Your task to perform on an android device: Show me recent news Image 0: 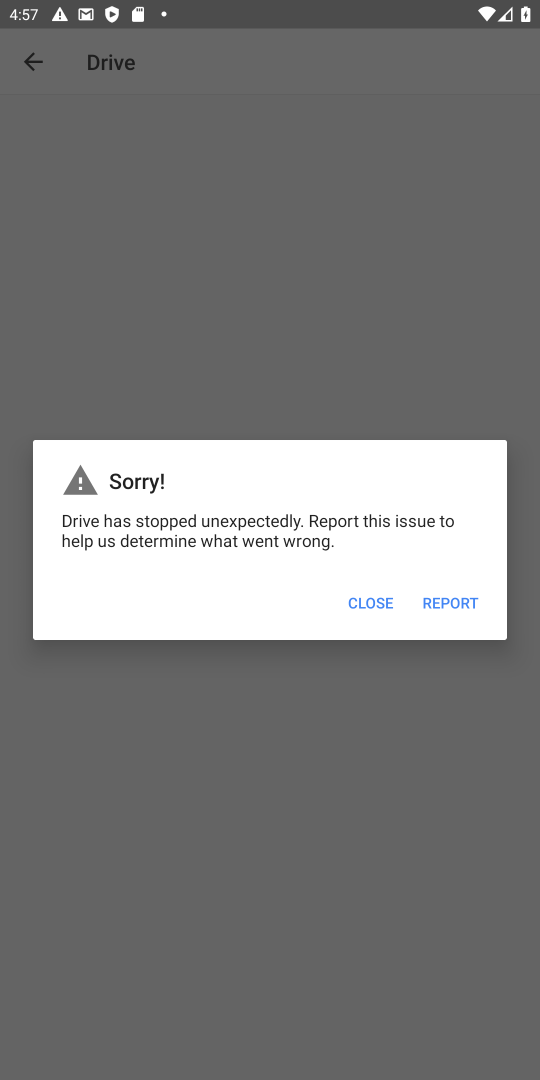
Step 0: press home button
Your task to perform on an android device: Show me recent news Image 1: 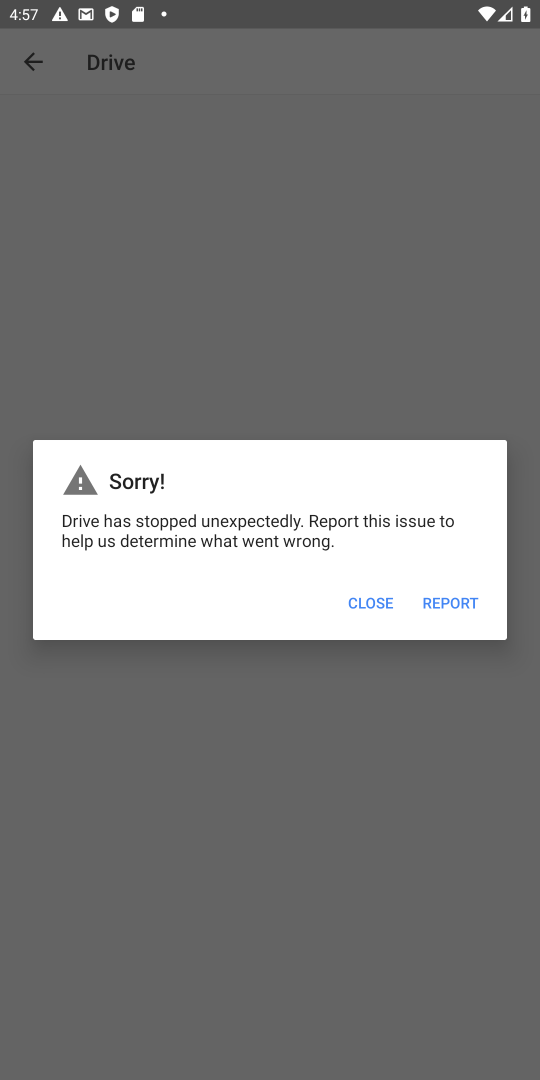
Step 1: press home button
Your task to perform on an android device: Show me recent news Image 2: 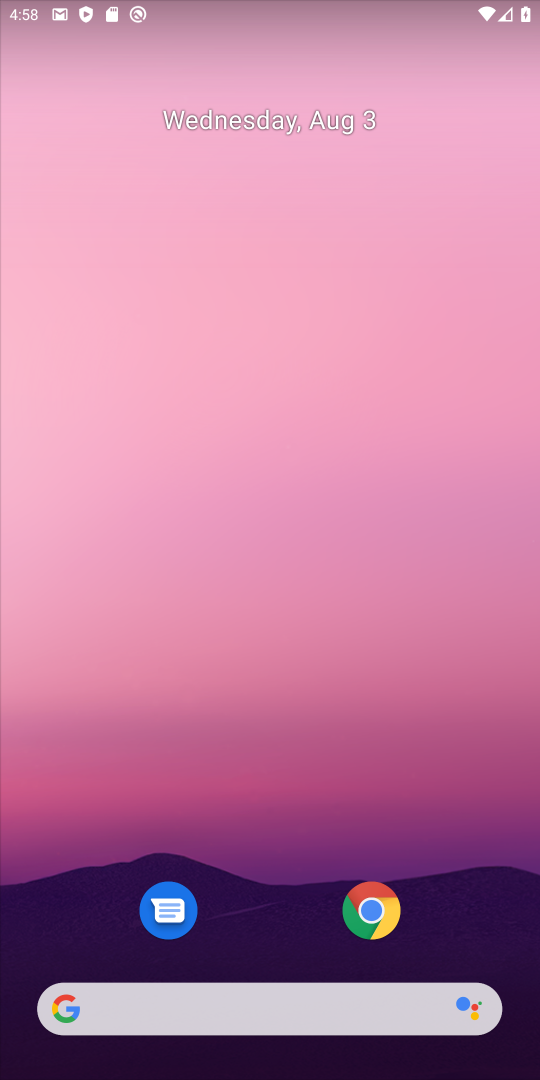
Step 2: click (346, 906)
Your task to perform on an android device: Show me recent news Image 3: 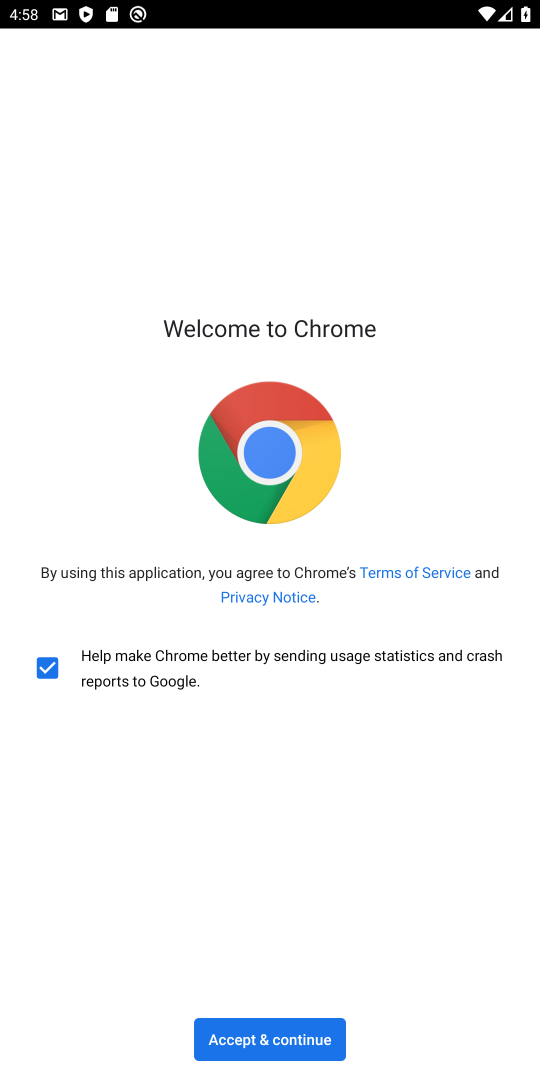
Step 3: click (234, 1026)
Your task to perform on an android device: Show me recent news Image 4: 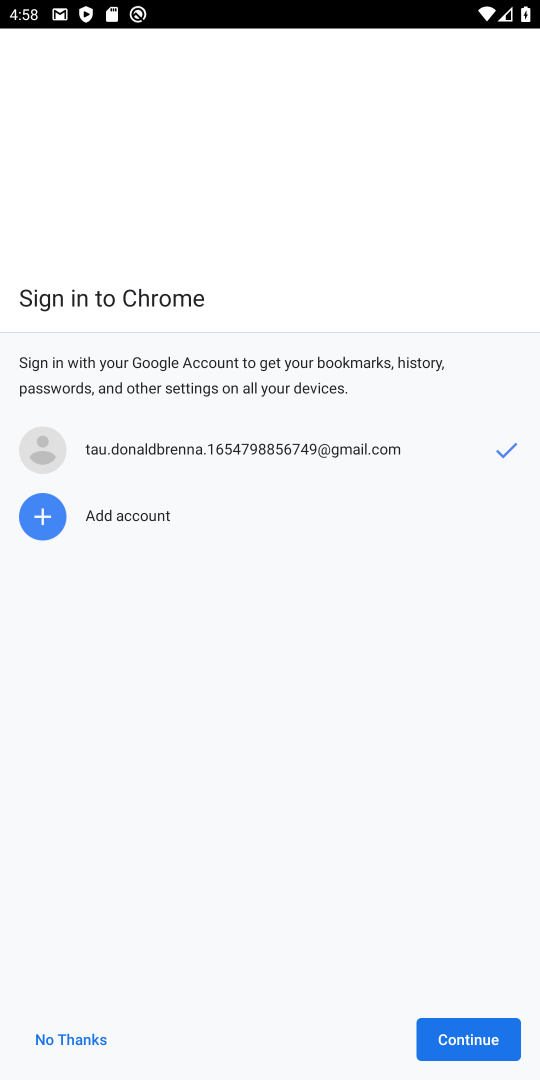
Step 4: click (447, 1047)
Your task to perform on an android device: Show me recent news Image 5: 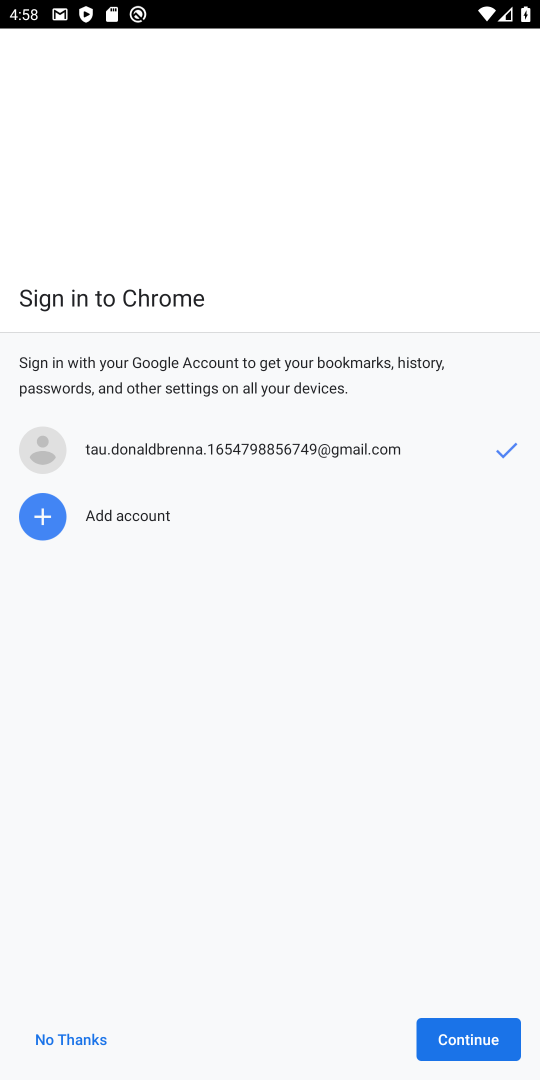
Step 5: click (447, 1047)
Your task to perform on an android device: Show me recent news Image 6: 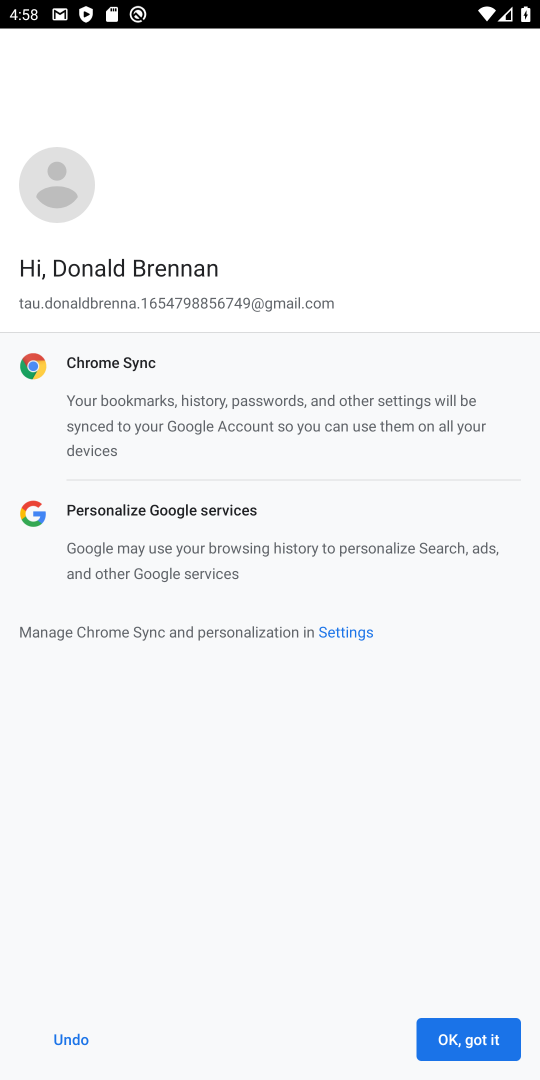
Step 6: click (447, 1047)
Your task to perform on an android device: Show me recent news Image 7: 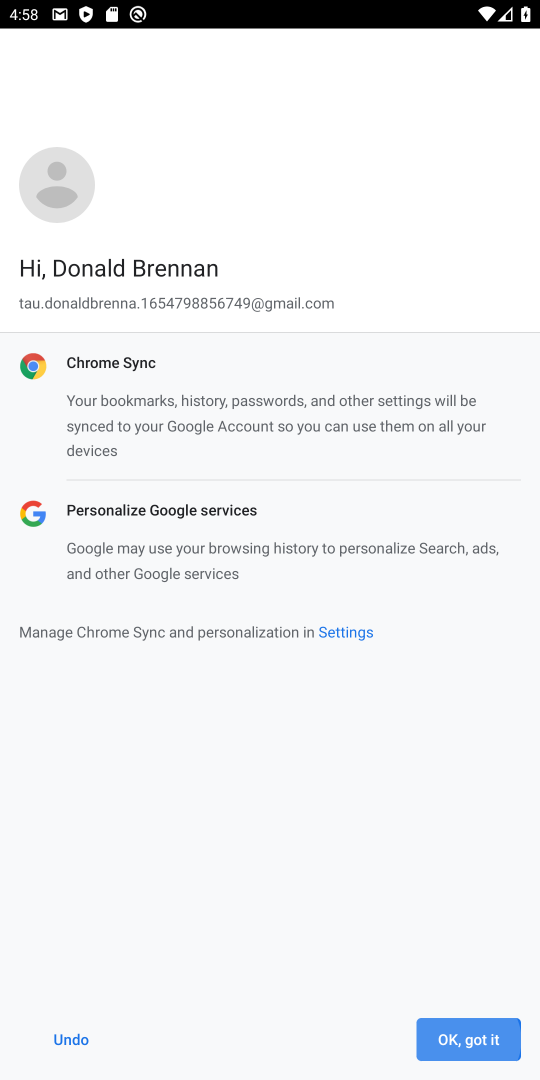
Step 7: click (447, 1047)
Your task to perform on an android device: Show me recent news Image 8: 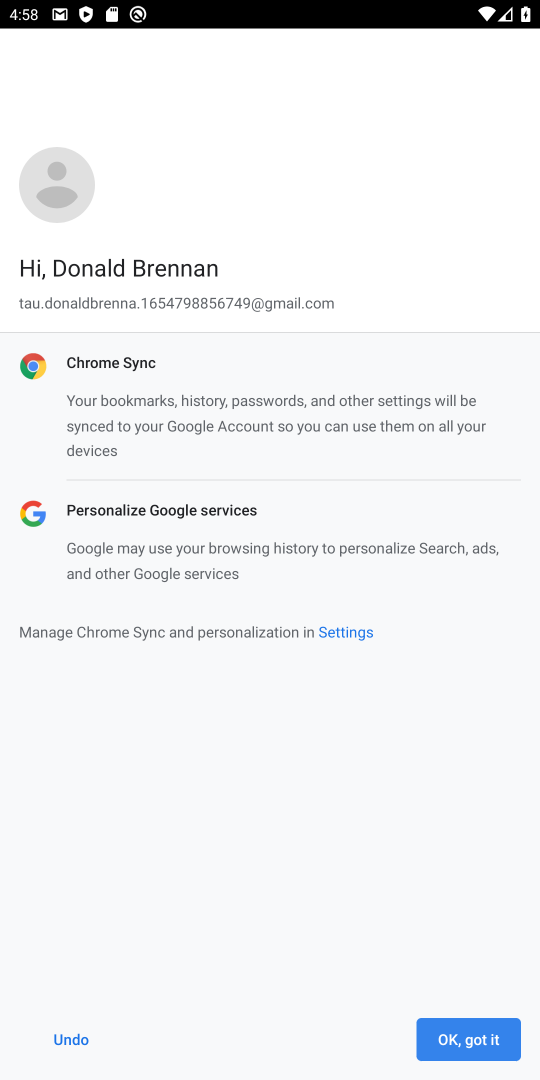
Step 8: click (447, 1047)
Your task to perform on an android device: Show me recent news Image 9: 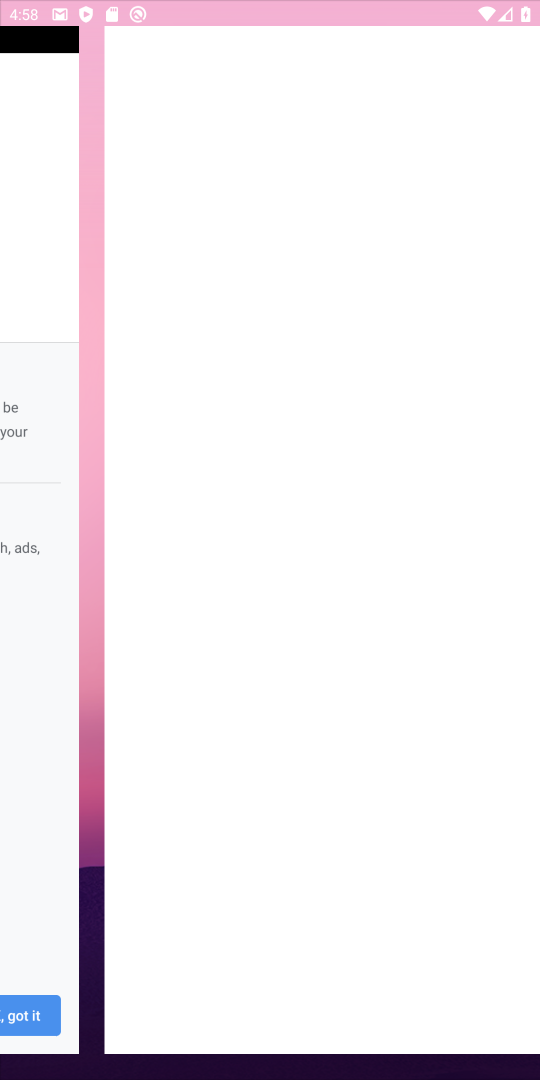
Step 9: click (447, 1047)
Your task to perform on an android device: Show me recent news Image 10: 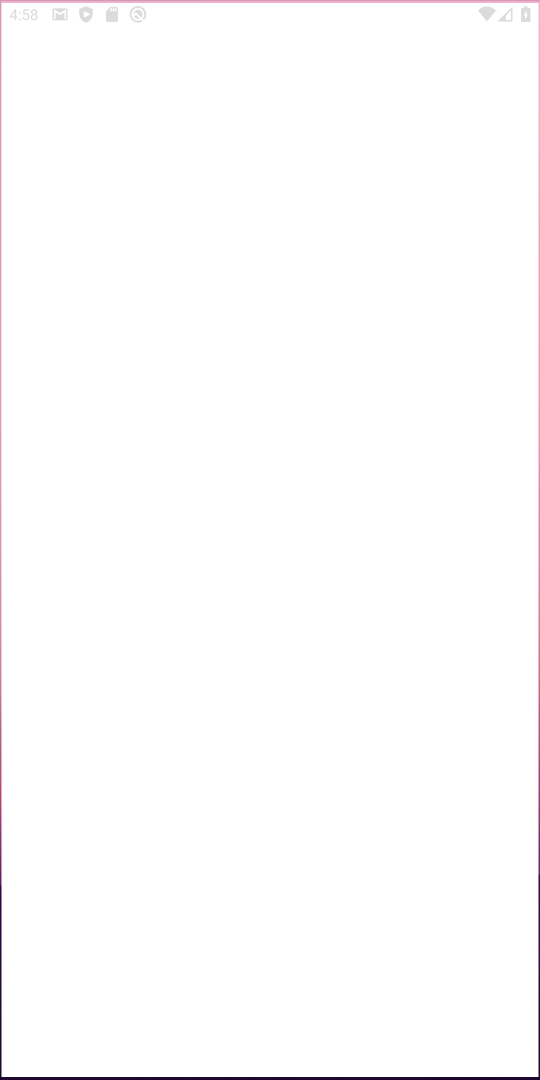
Step 10: click (447, 1047)
Your task to perform on an android device: Show me recent news Image 11: 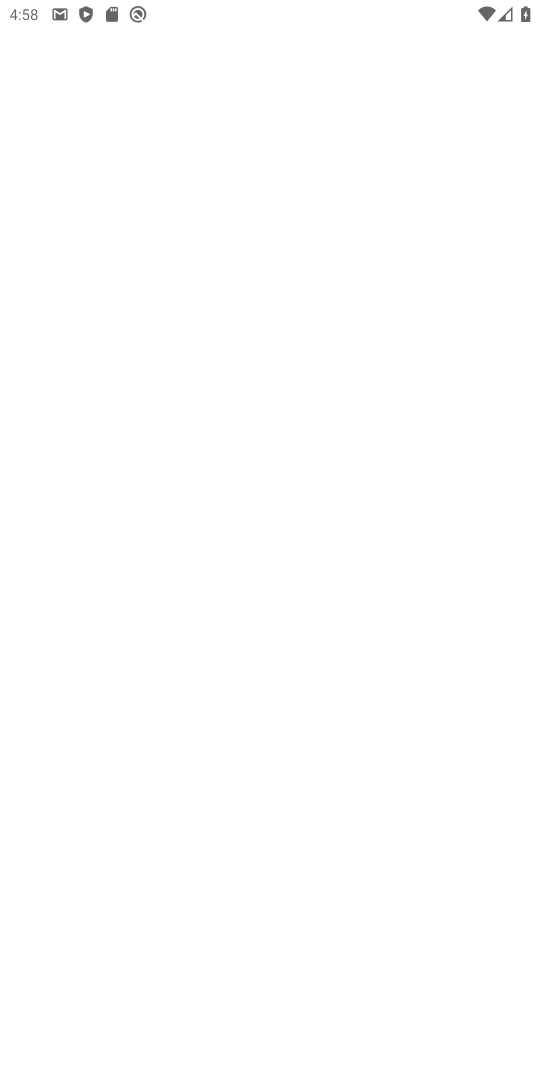
Step 11: click (447, 1047)
Your task to perform on an android device: Show me recent news Image 12: 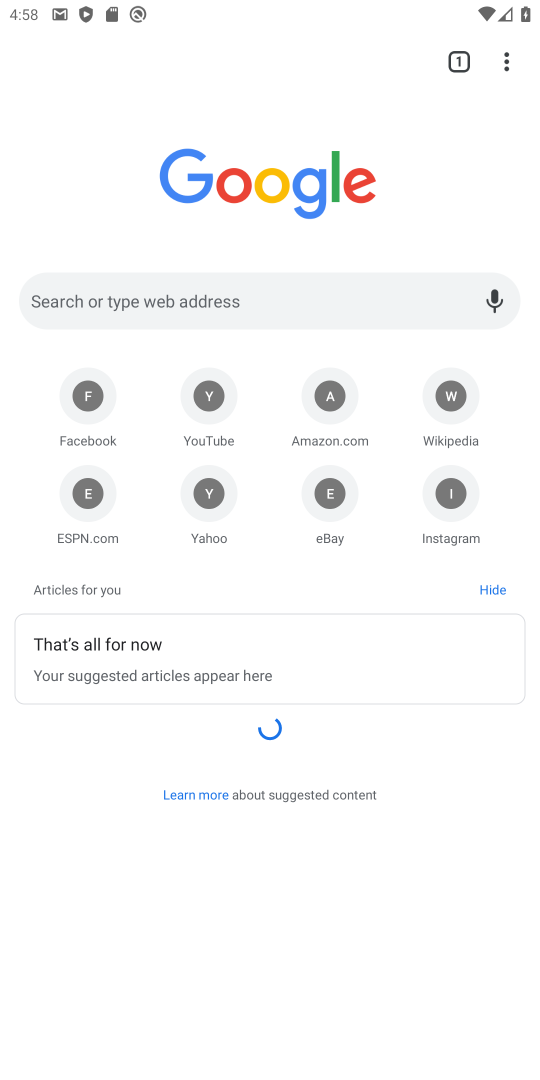
Step 12: click (137, 291)
Your task to perform on an android device: Show me recent news Image 13: 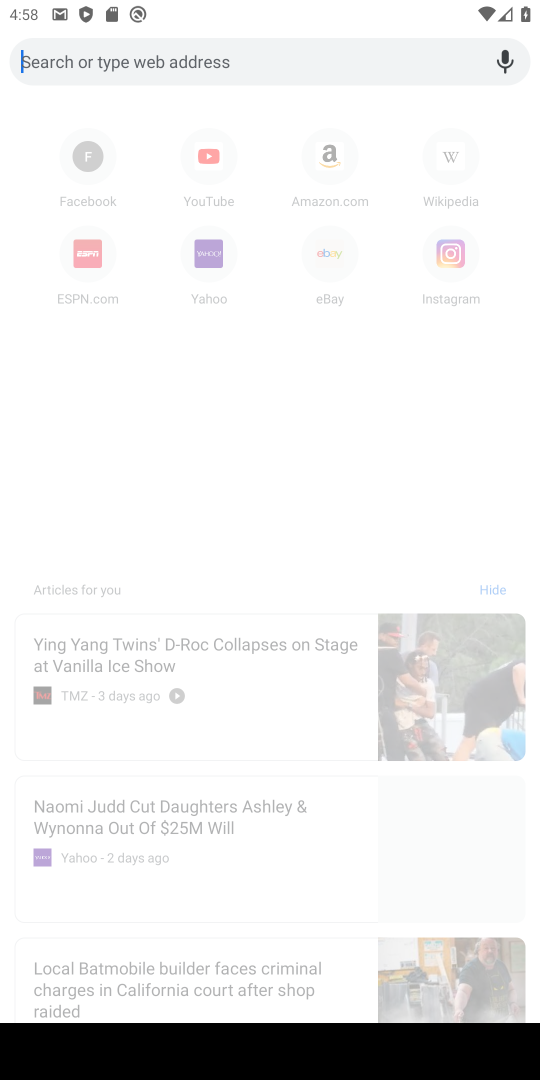
Step 13: type "Show me recent news]"
Your task to perform on an android device: Show me recent news Image 14: 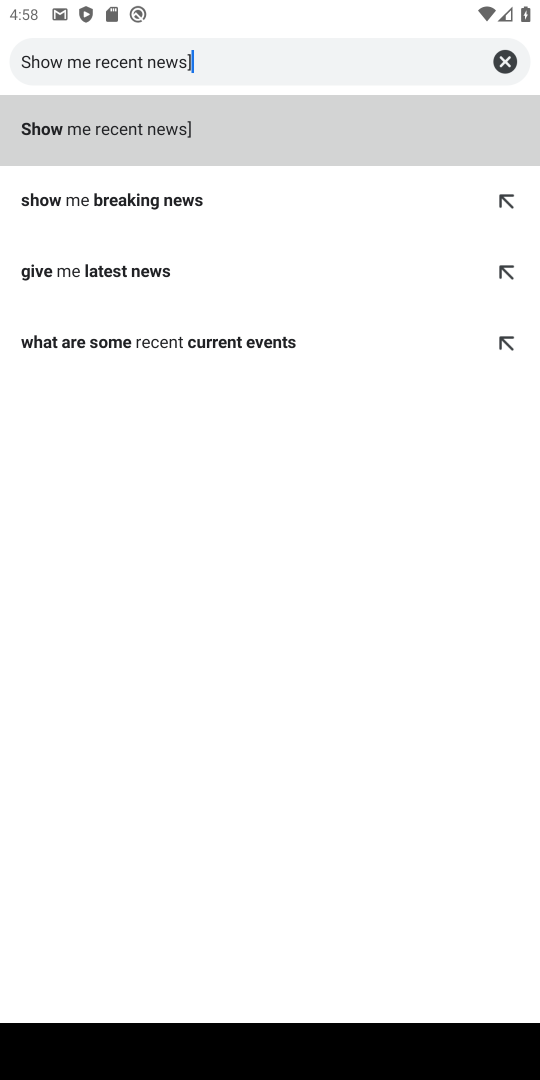
Step 14: type "Show me recent news"
Your task to perform on an android device: Show me recent news Image 15: 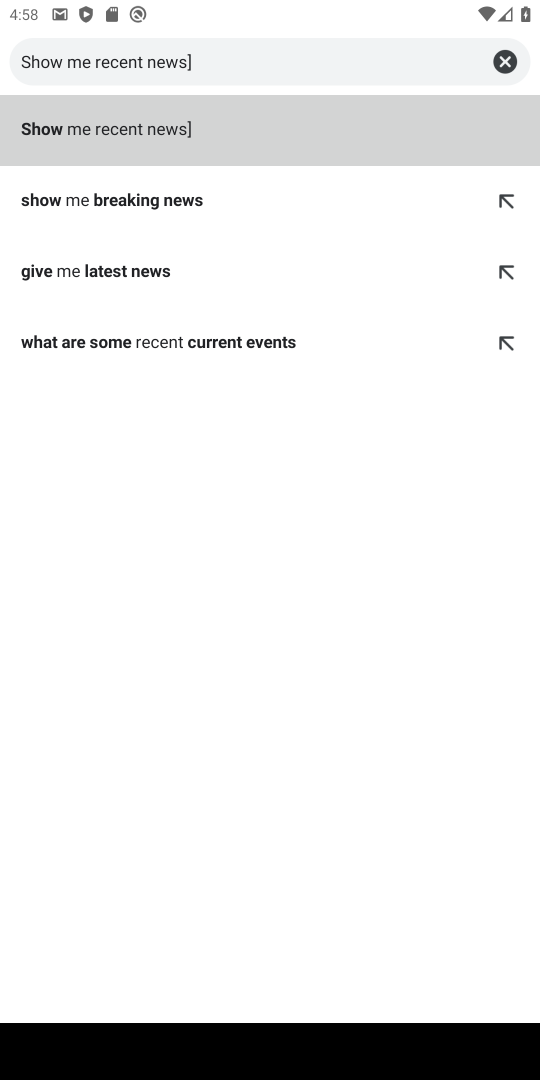
Step 15: click (503, 130)
Your task to perform on an android device: Show me recent news Image 16: 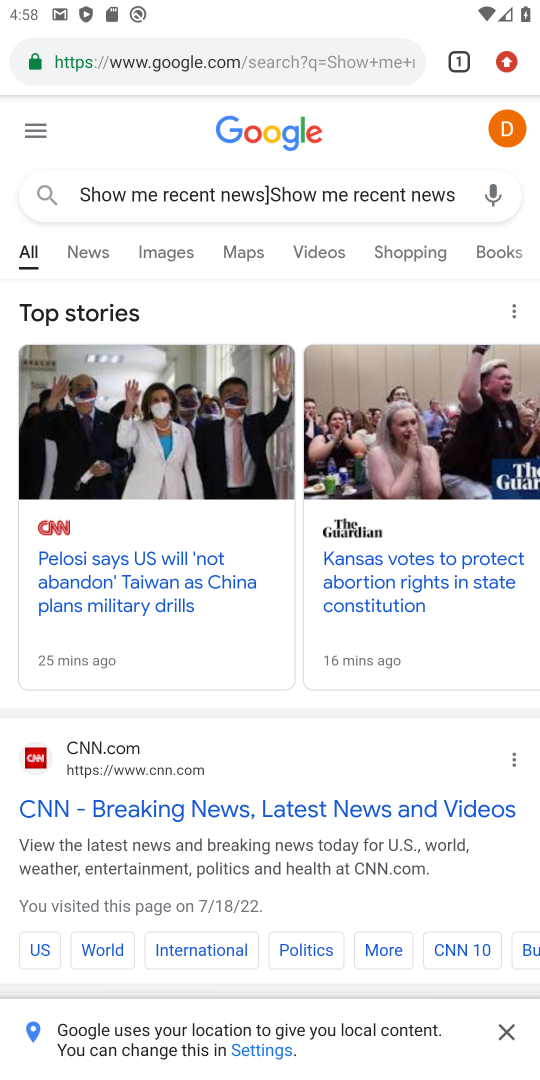
Step 16: task complete